Your task to perform on an android device: move a message to another label in the gmail app Image 0: 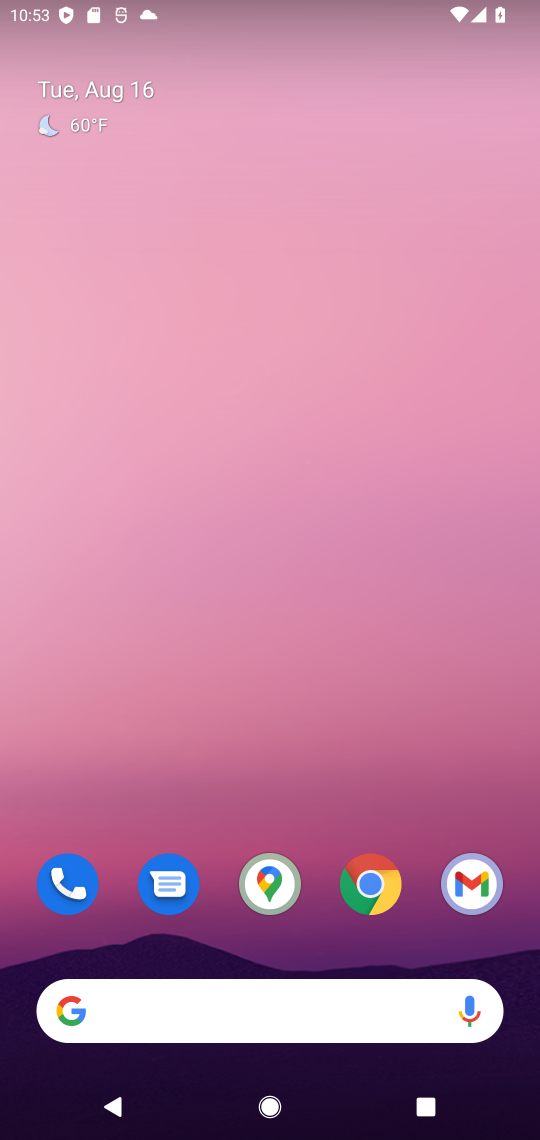
Step 0: click (469, 883)
Your task to perform on an android device: move a message to another label in the gmail app Image 1: 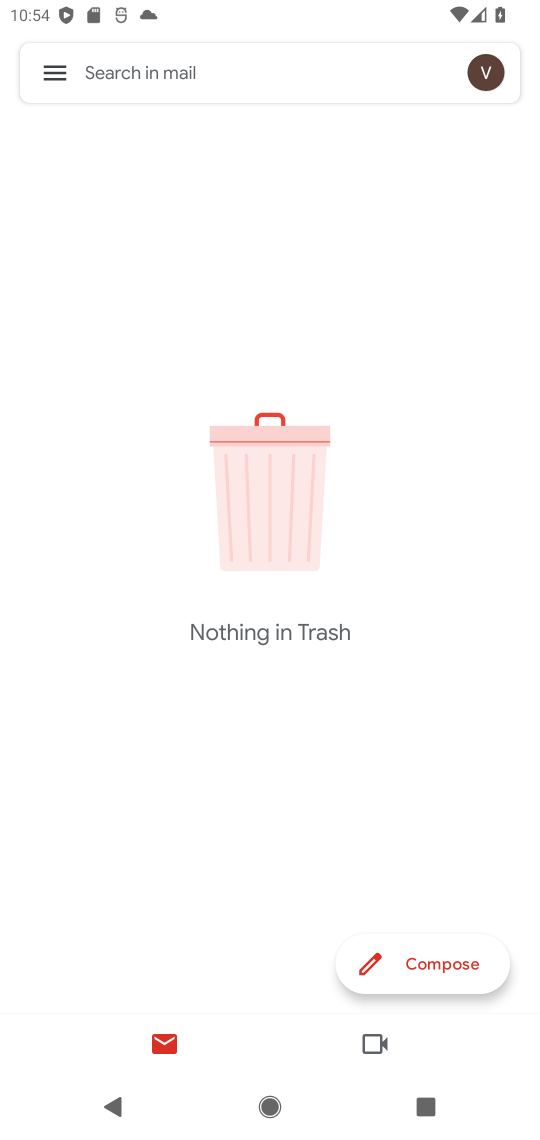
Step 1: click (60, 71)
Your task to perform on an android device: move a message to another label in the gmail app Image 2: 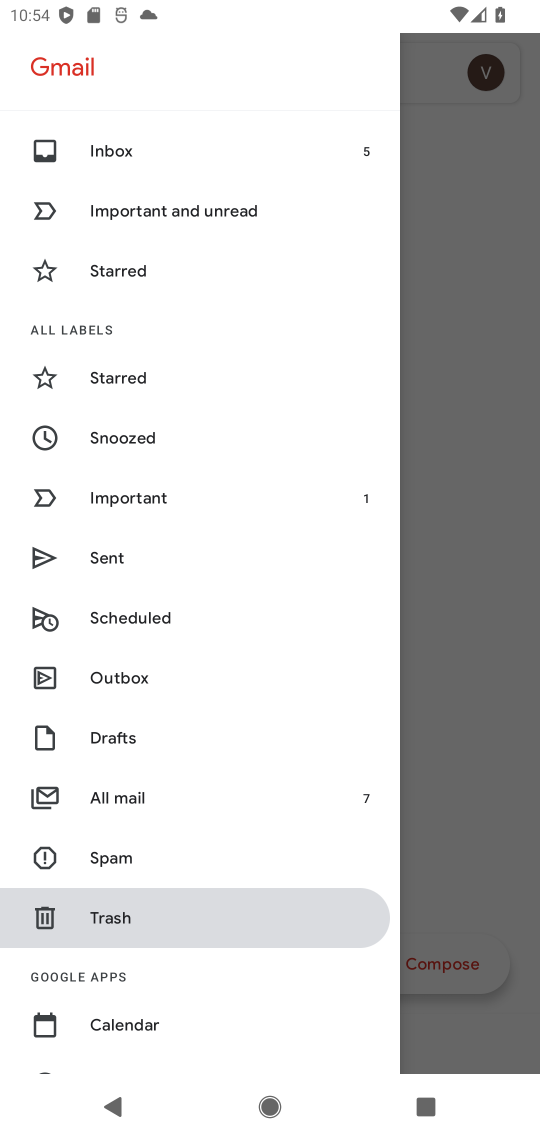
Step 2: click (220, 798)
Your task to perform on an android device: move a message to another label in the gmail app Image 3: 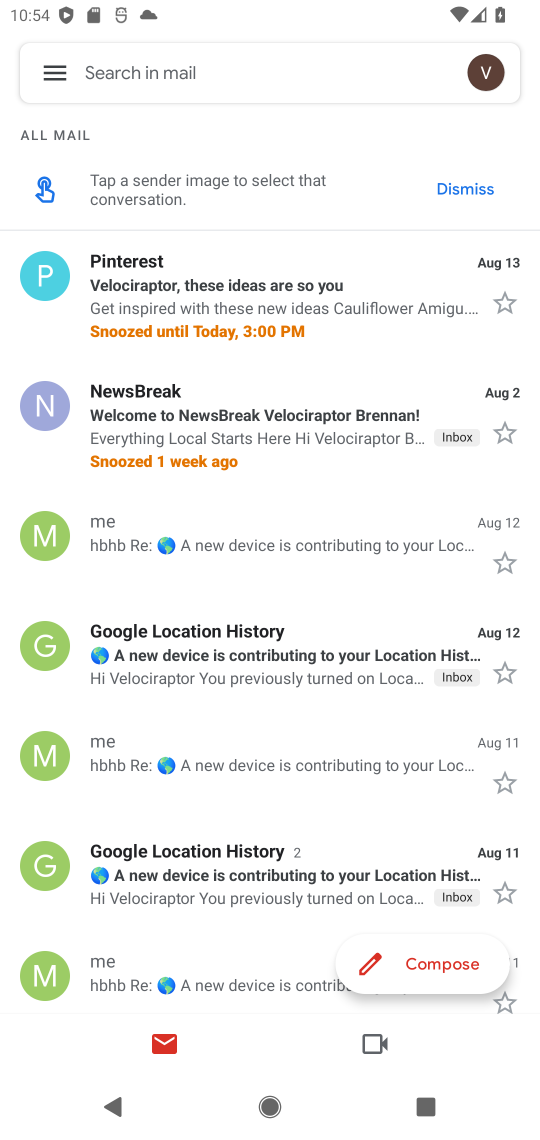
Step 3: click (430, 562)
Your task to perform on an android device: move a message to another label in the gmail app Image 4: 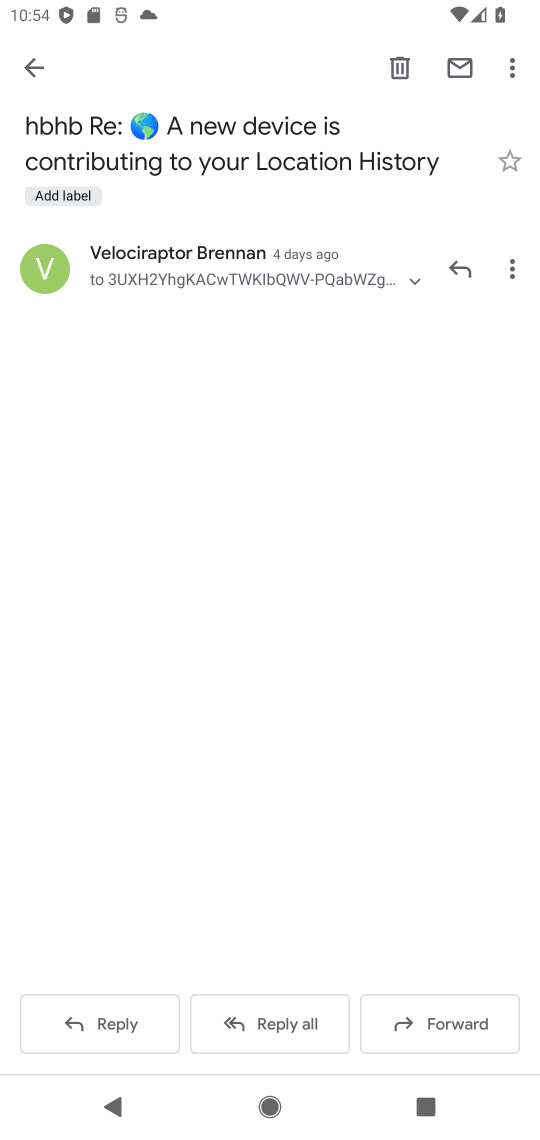
Step 4: click (60, 196)
Your task to perform on an android device: move a message to another label in the gmail app Image 5: 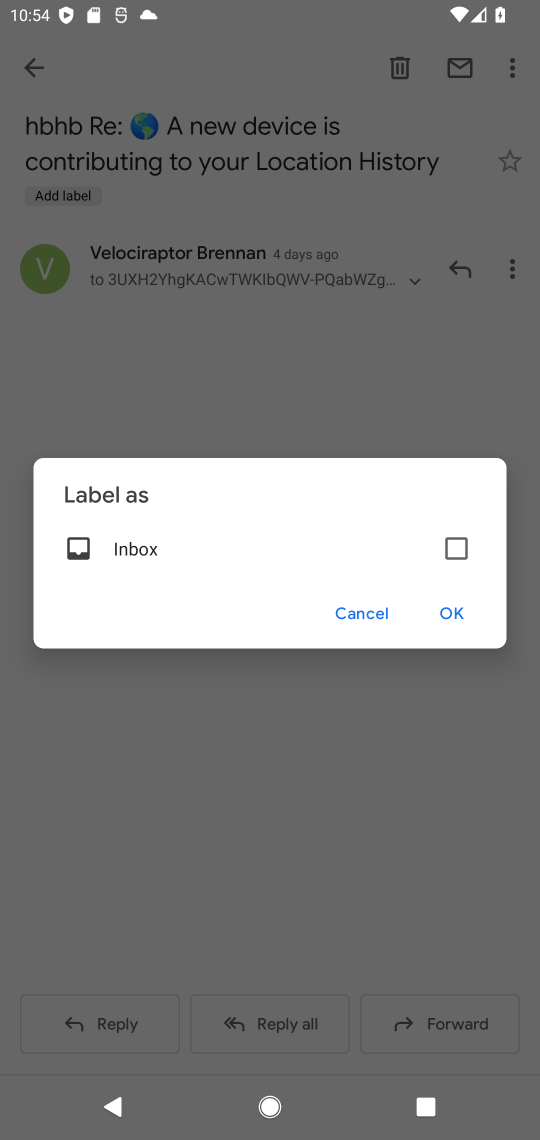
Step 5: click (452, 555)
Your task to perform on an android device: move a message to another label in the gmail app Image 6: 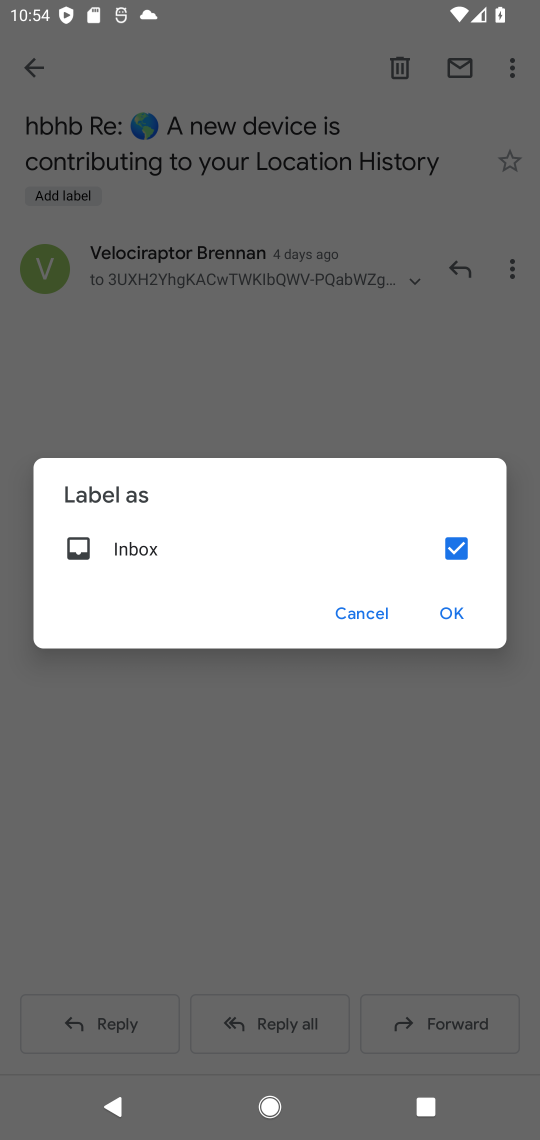
Step 6: click (460, 621)
Your task to perform on an android device: move a message to another label in the gmail app Image 7: 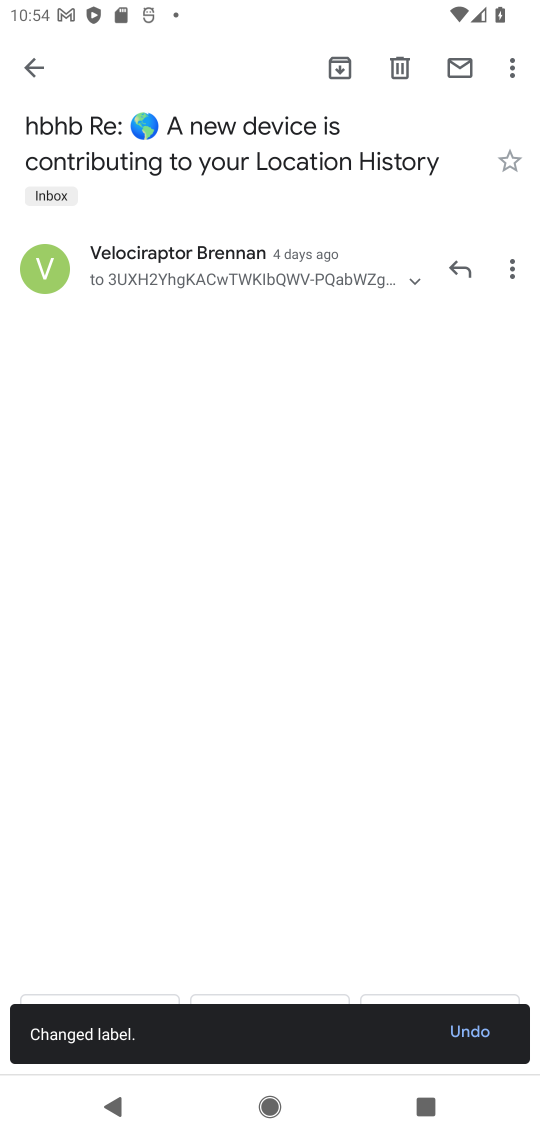
Step 7: task complete